Your task to perform on an android device: toggle priority inbox in the gmail app Image 0: 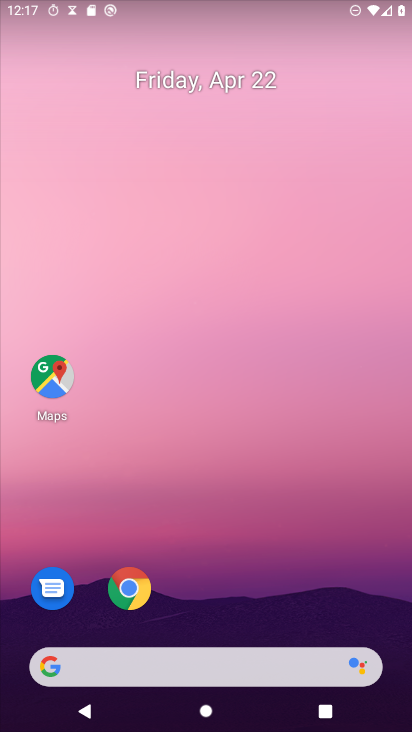
Step 0: drag from (320, 576) to (342, 83)
Your task to perform on an android device: toggle priority inbox in the gmail app Image 1: 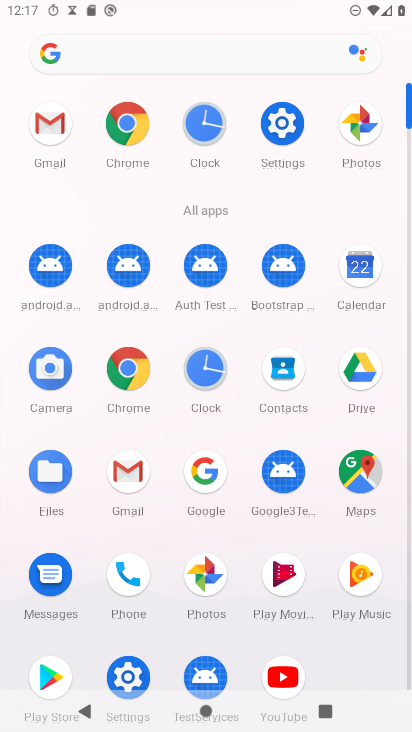
Step 1: click (131, 473)
Your task to perform on an android device: toggle priority inbox in the gmail app Image 2: 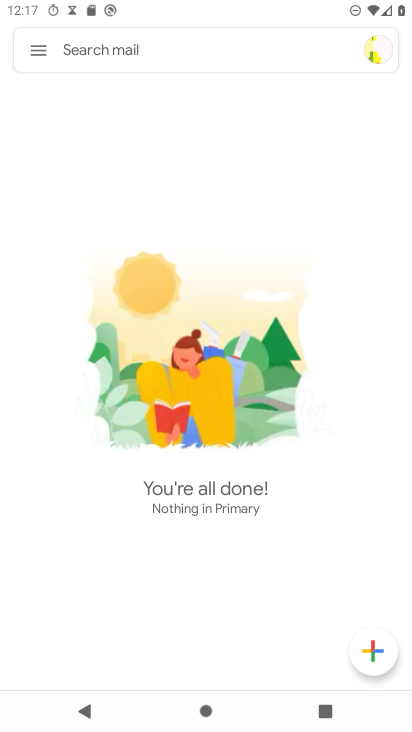
Step 2: click (42, 47)
Your task to perform on an android device: toggle priority inbox in the gmail app Image 3: 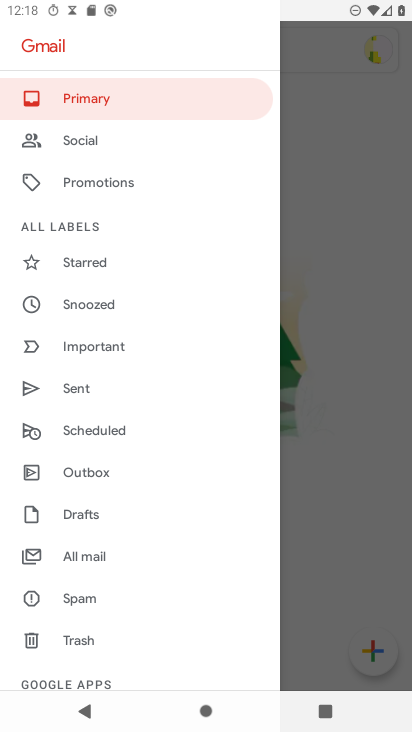
Step 3: drag from (53, 638) to (92, 475)
Your task to perform on an android device: toggle priority inbox in the gmail app Image 4: 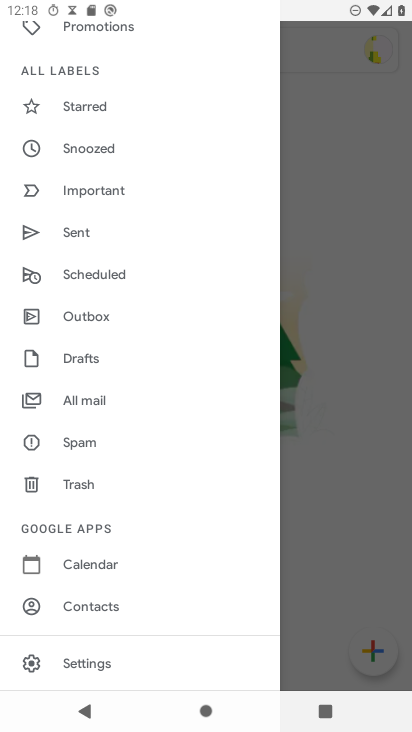
Step 4: click (113, 659)
Your task to perform on an android device: toggle priority inbox in the gmail app Image 5: 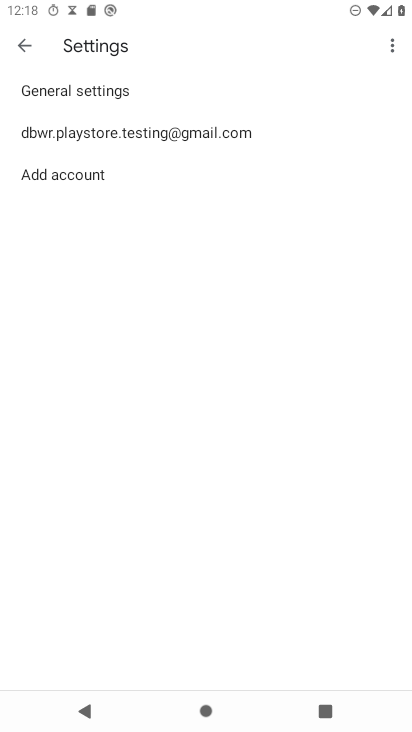
Step 5: click (249, 128)
Your task to perform on an android device: toggle priority inbox in the gmail app Image 6: 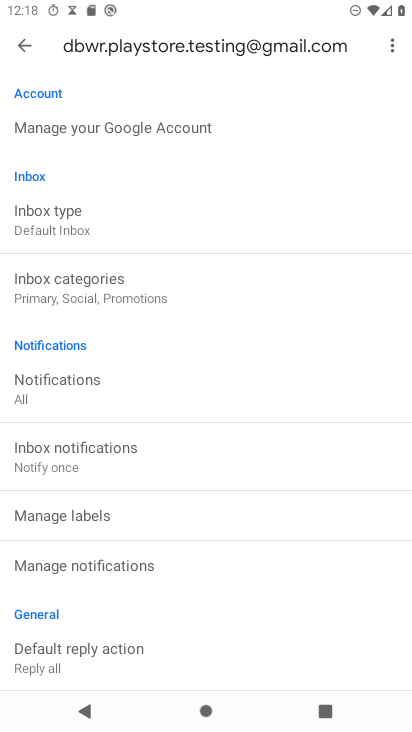
Step 6: drag from (179, 663) to (208, 633)
Your task to perform on an android device: toggle priority inbox in the gmail app Image 7: 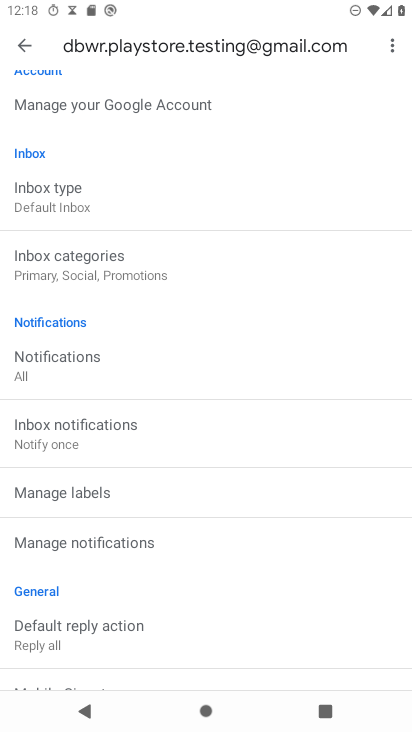
Step 7: click (179, 195)
Your task to perform on an android device: toggle priority inbox in the gmail app Image 8: 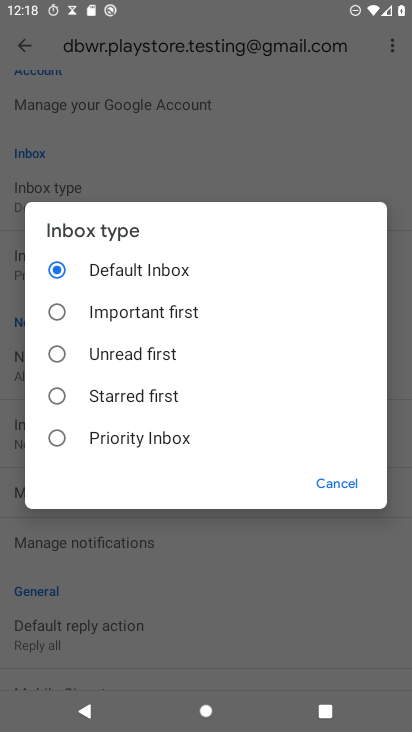
Step 8: click (161, 443)
Your task to perform on an android device: toggle priority inbox in the gmail app Image 9: 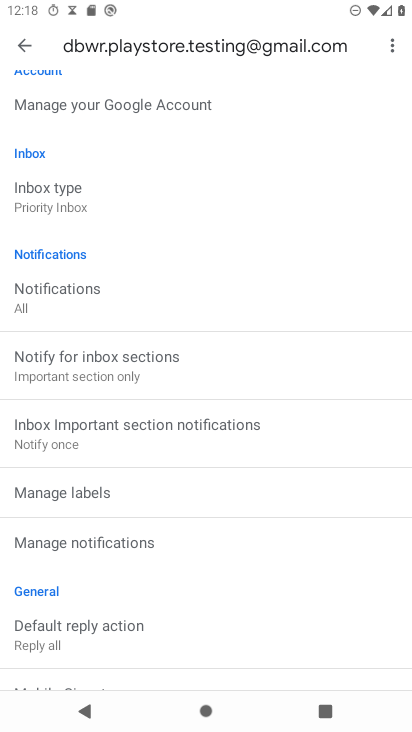
Step 9: task complete